Your task to perform on an android device: Open location settings Image 0: 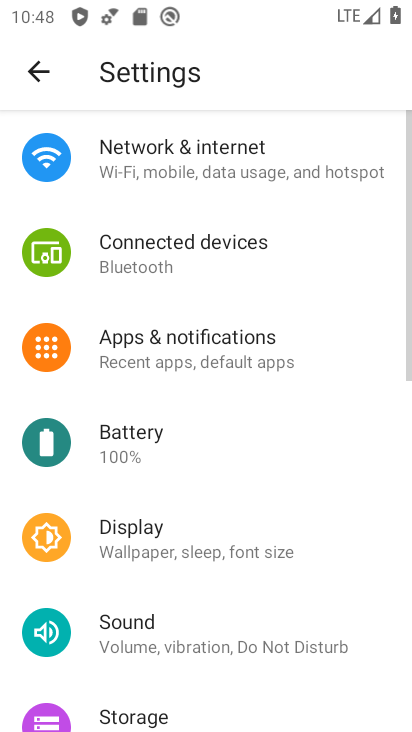
Step 0: press home button
Your task to perform on an android device: Open location settings Image 1: 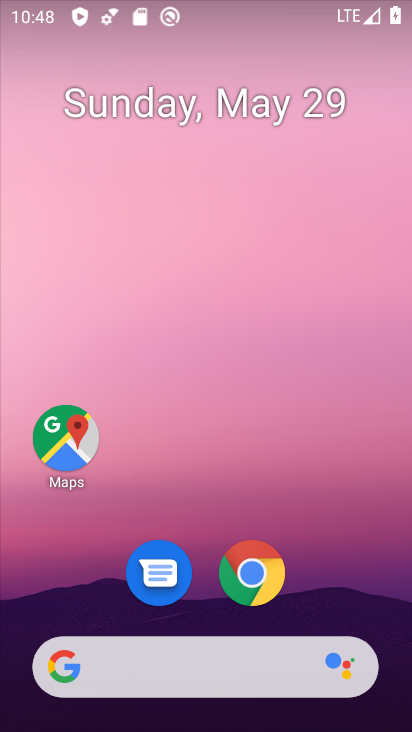
Step 1: drag from (370, 565) to (189, 62)
Your task to perform on an android device: Open location settings Image 2: 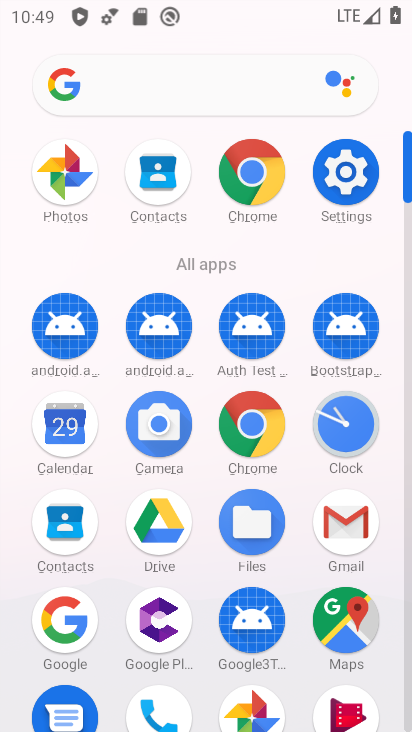
Step 2: click (330, 185)
Your task to perform on an android device: Open location settings Image 3: 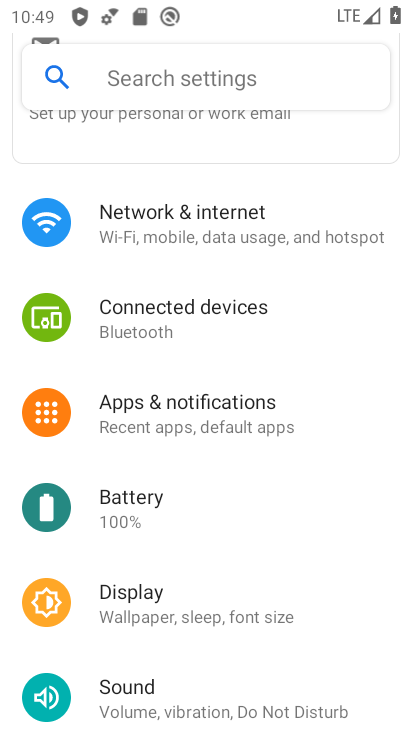
Step 3: drag from (243, 624) to (219, 231)
Your task to perform on an android device: Open location settings Image 4: 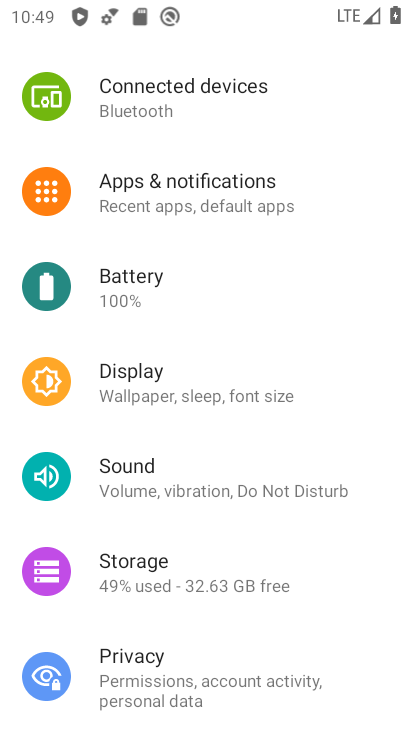
Step 4: drag from (195, 592) to (211, 174)
Your task to perform on an android device: Open location settings Image 5: 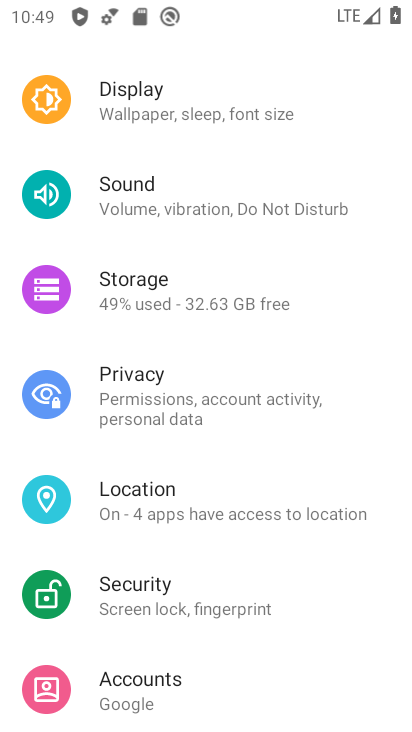
Step 5: click (216, 503)
Your task to perform on an android device: Open location settings Image 6: 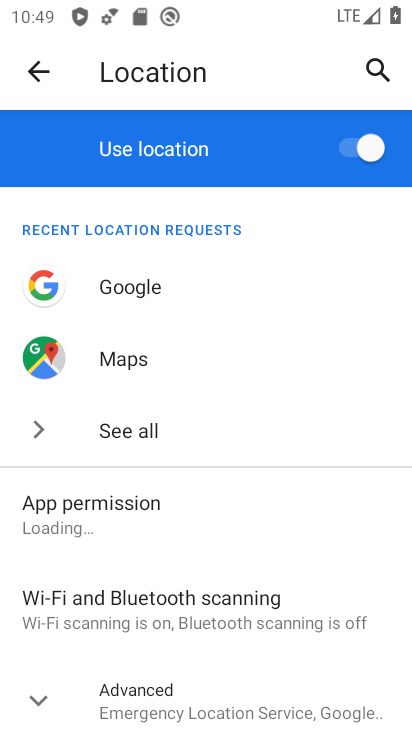
Step 6: task complete